Your task to perform on an android device: all mails in gmail Image 0: 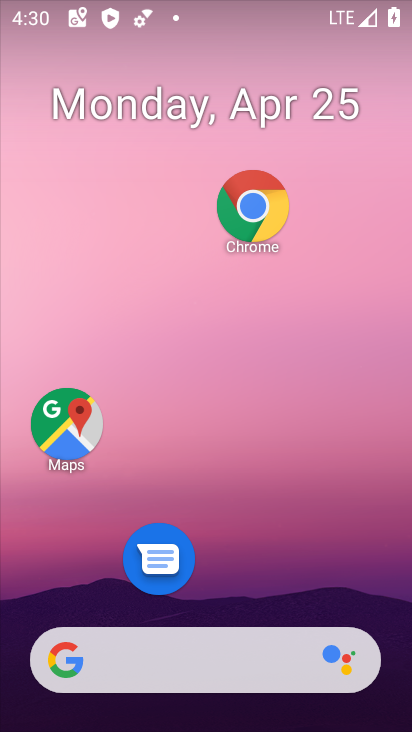
Step 0: drag from (240, 546) to (195, 37)
Your task to perform on an android device: all mails in gmail Image 1: 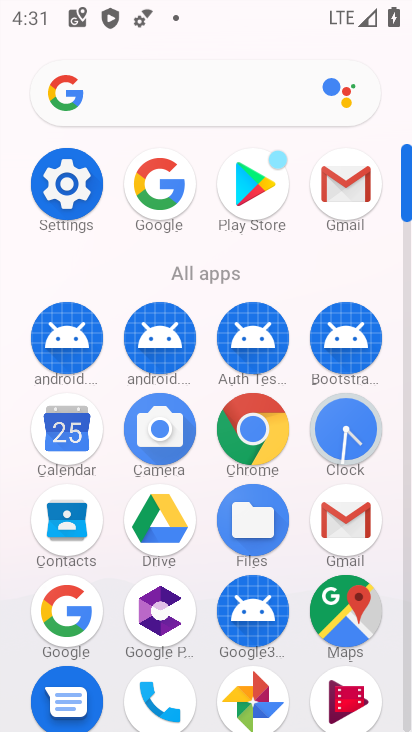
Step 1: click (349, 184)
Your task to perform on an android device: all mails in gmail Image 2: 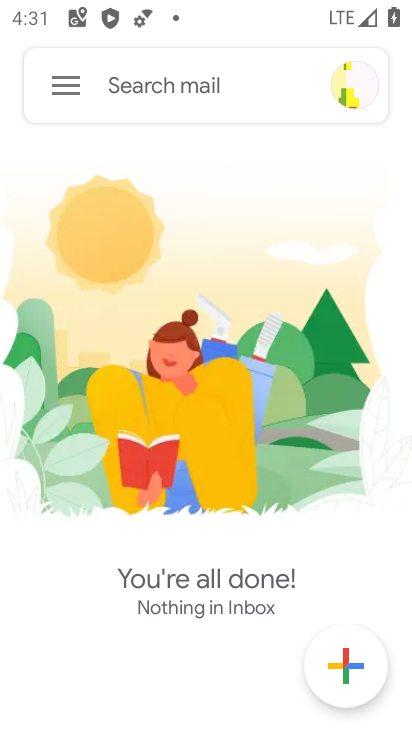
Step 2: click (60, 91)
Your task to perform on an android device: all mails in gmail Image 3: 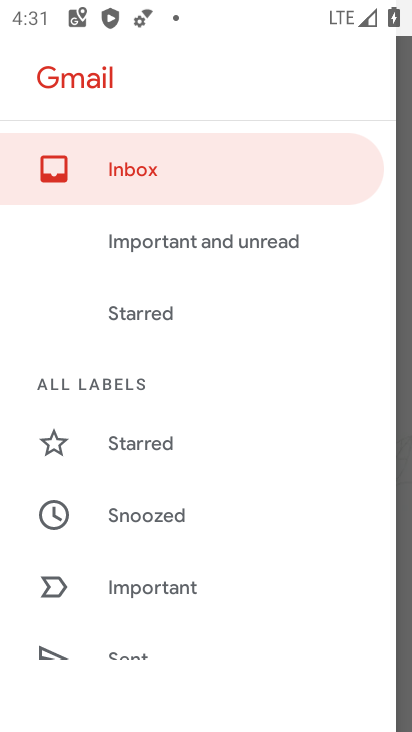
Step 3: drag from (201, 544) to (237, 451)
Your task to perform on an android device: all mails in gmail Image 4: 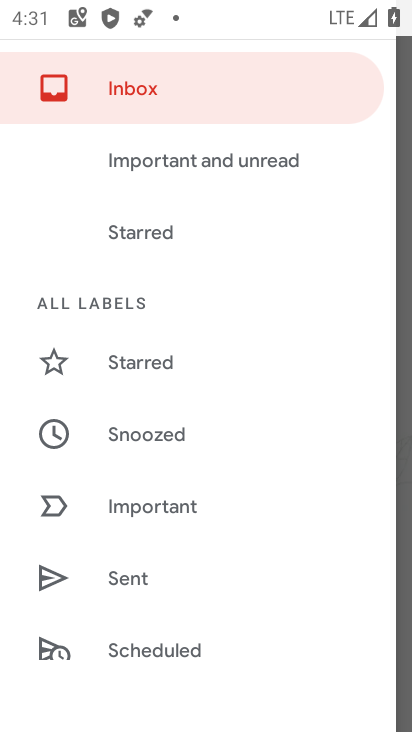
Step 4: drag from (198, 554) to (223, 487)
Your task to perform on an android device: all mails in gmail Image 5: 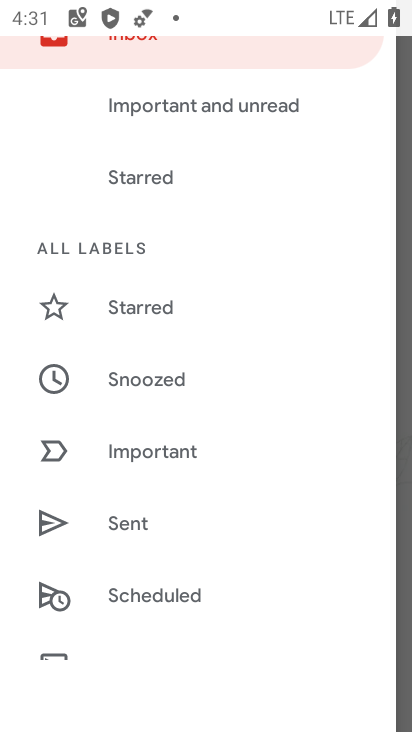
Step 5: drag from (189, 553) to (231, 478)
Your task to perform on an android device: all mails in gmail Image 6: 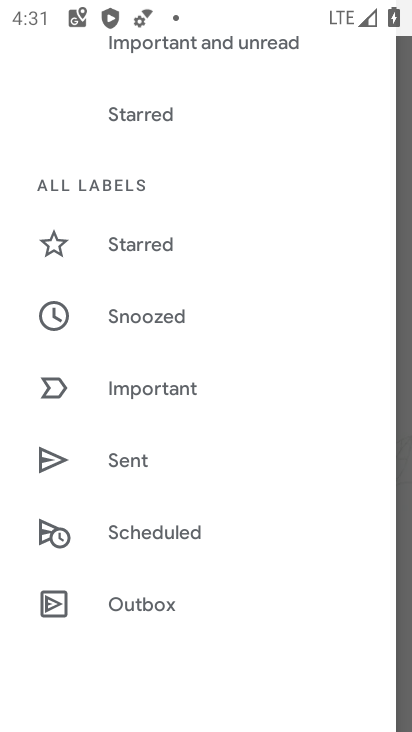
Step 6: drag from (175, 559) to (238, 468)
Your task to perform on an android device: all mails in gmail Image 7: 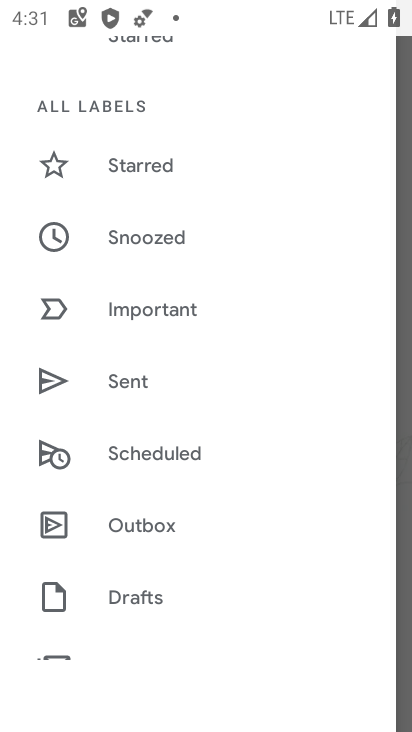
Step 7: drag from (192, 551) to (266, 440)
Your task to perform on an android device: all mails in gmail Image 8: 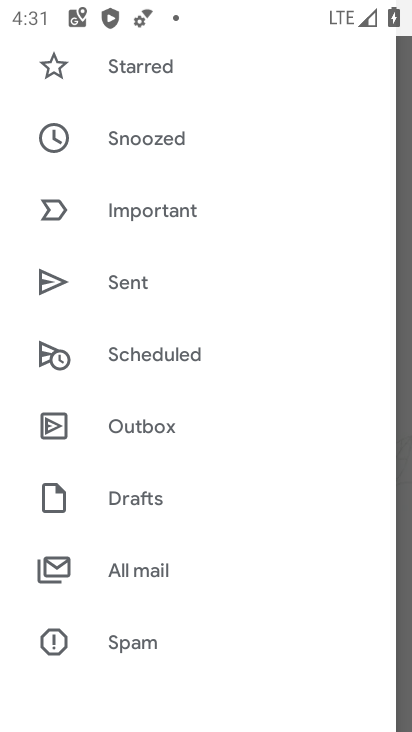
Step 8: click (142, 579)
Your task to perform on an android device: all mails in gmail Image 9: 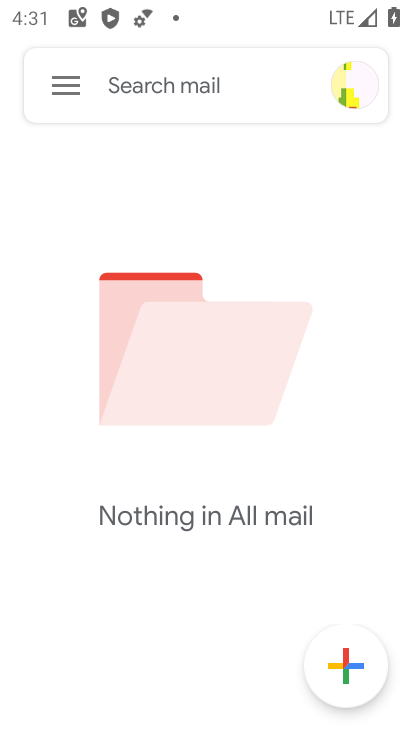
Step 9: task complete